Your task to perform on an android device: Show me popular games on the Play Store Image 0: 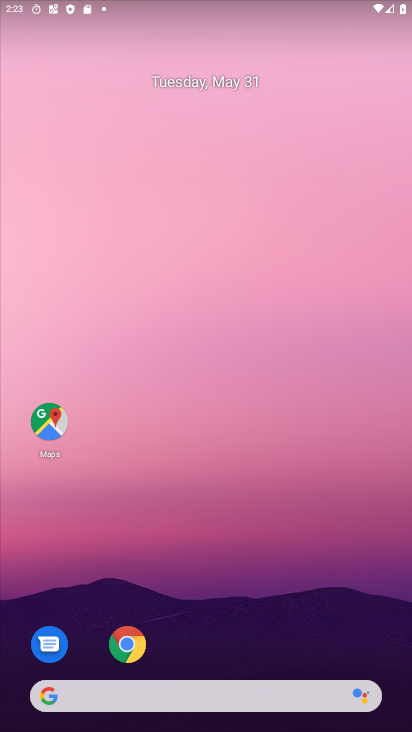
Step 0: drag from (393, 694) to (363, 57)
Your task to perform on an android device: Show me popular games on the Play Store Image 1: 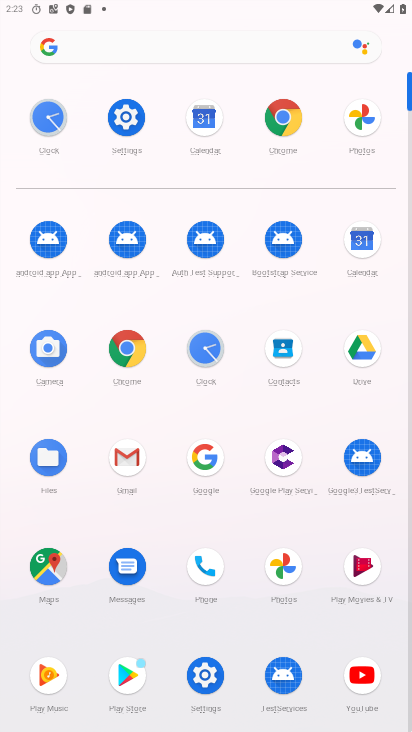
Step 1: click (139, 668)
Your task to perform on an android device: Show me popular games on the Play Store Image 2: 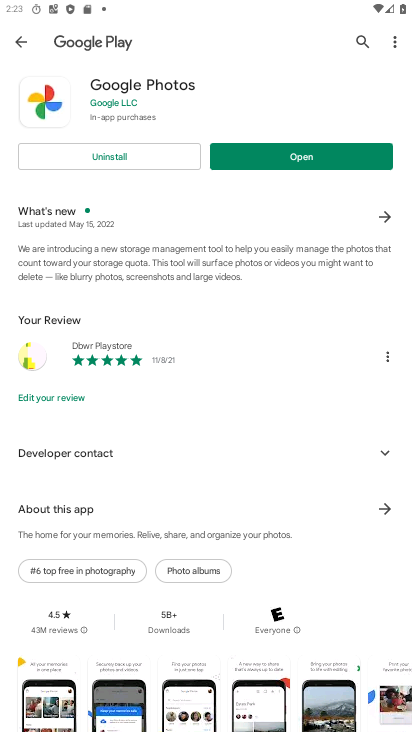
Step 2: click (16, 41)
Your task to perform on an android device: Show me popular games on the Play Store Image 3: 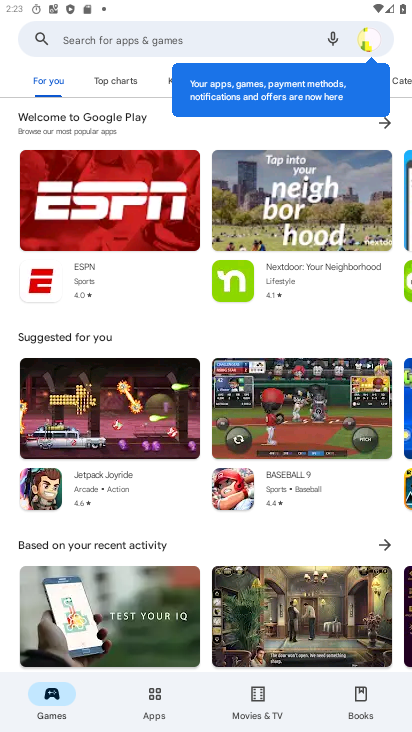
Step 3: click (166, 41)
Your task to perform on an android device: Show me popular games on the Play Store Image 4: 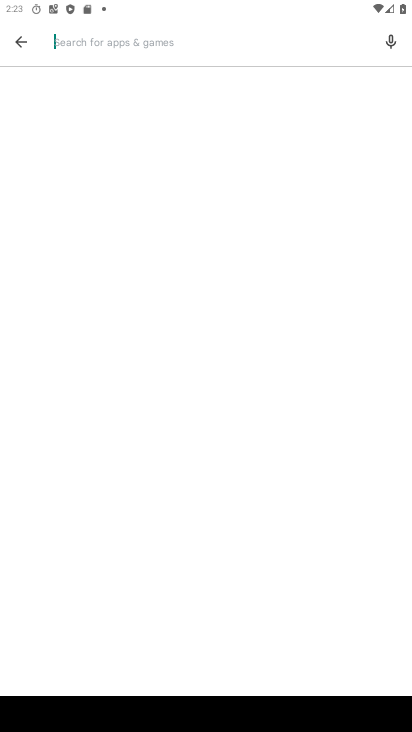
Step 4: type "popular games"
Your task to perform on an android device: Show me popular games on the Play Store Image 5: 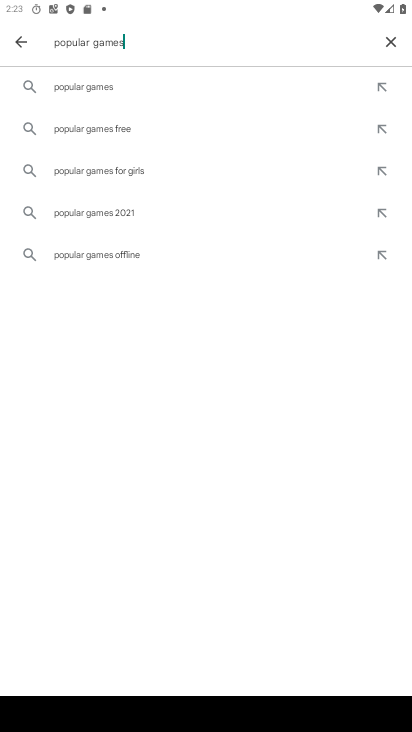
Step 5: click (104, 87)
Your task to perform on an android device: Show me popular games on the Play Store Image 6: 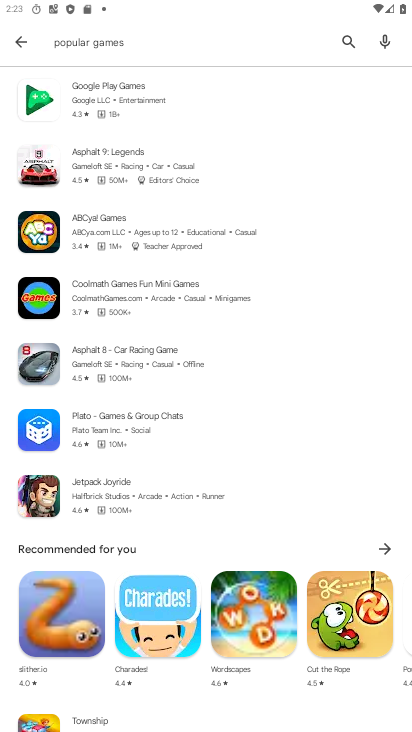
Step 6: task complete